Your task to perform on an android device: Go to ESPN.com Image 0: 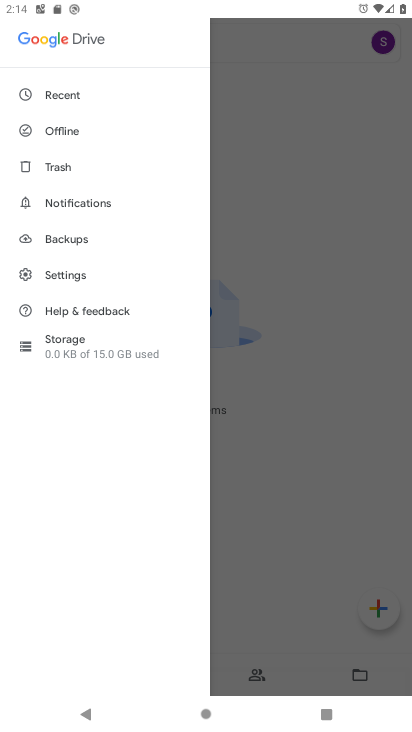
Step 0: click (328, 434)
Your task to perform on an android device: Go to ESPN.com Image 1: 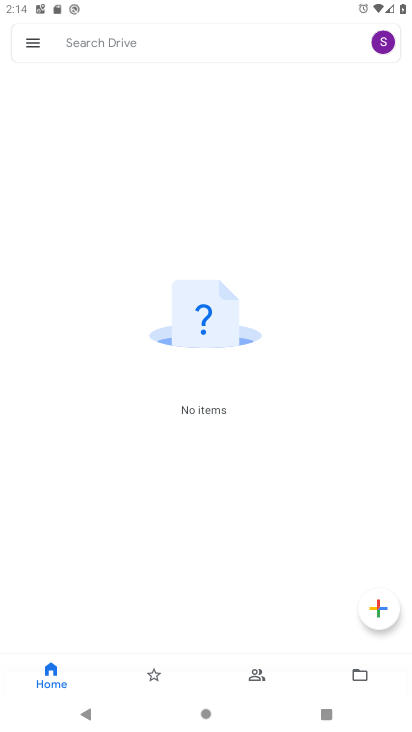
Step 1: press home button
Your task to perform on an android device: Go to ESPN.com Image 2: 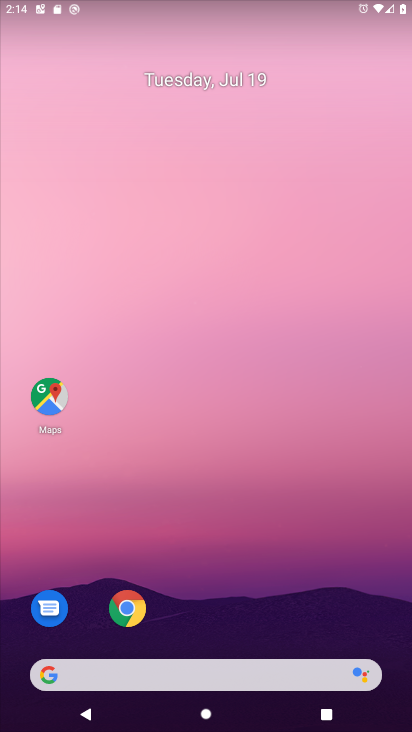
Step 2: drag from (236, 544) to (286, 122)
Your task to perform on an android device: Go to ESPN.com Image 3: 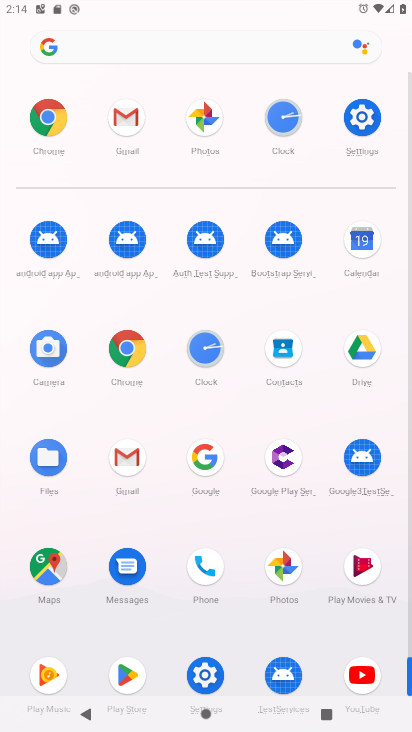
Step 3: click (133, 359)
Your task to perform on an android device: Go to ESPN.com Image 4: 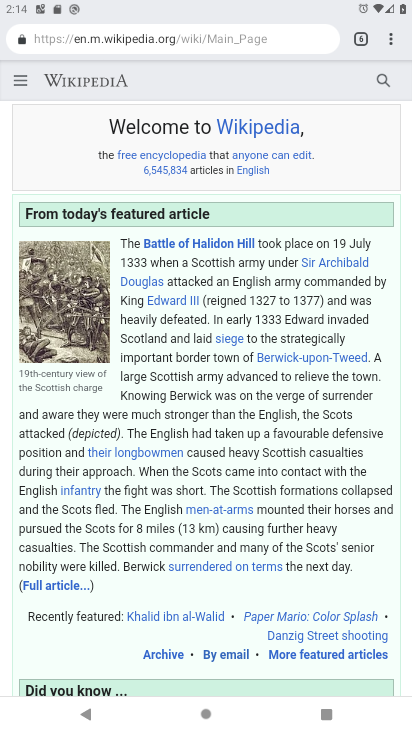
Step 4: click (366, 35)
Your task to perform on an android device: Go to ESPN.com Image 5: 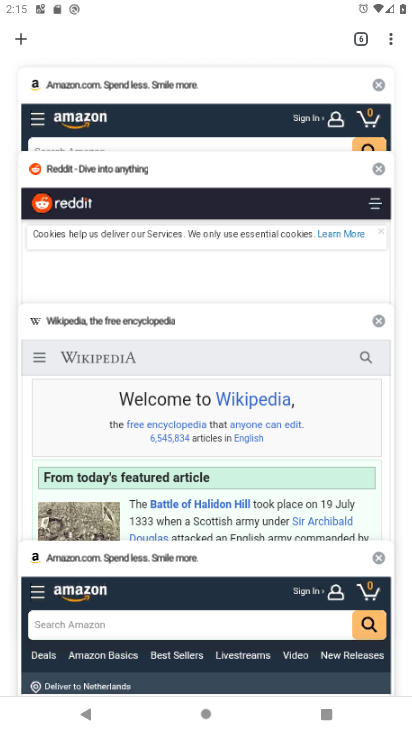
Step 5: click (27, 46)
Your task to perform on an android device: Go to ESPN.com Image 6: 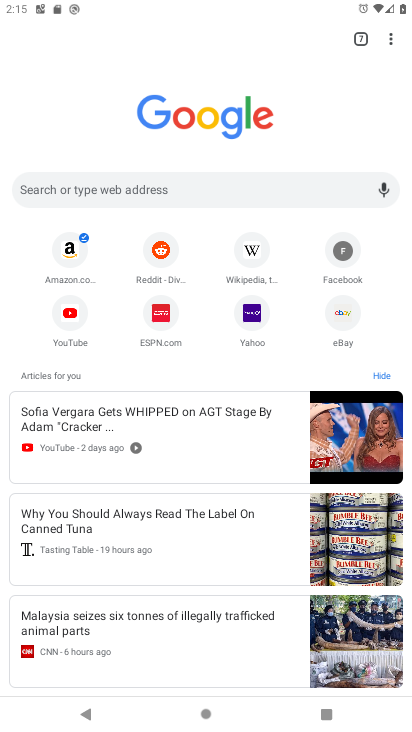
Step 6: click (237, 193)
Your task to perform on an android device: Go to ESPN.com Image 7: 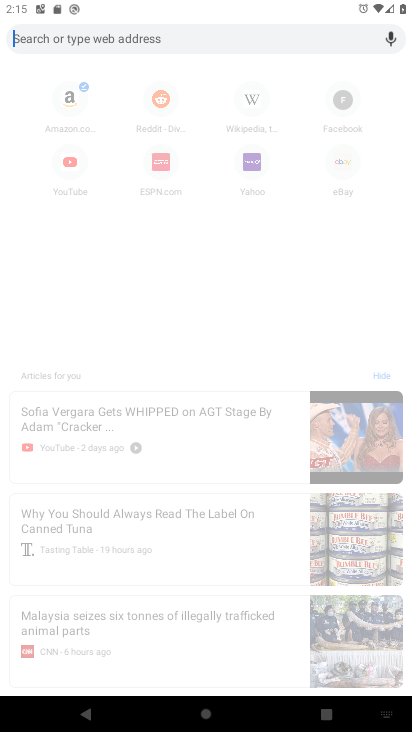
Step 7: type " ESPN.com"
Your task to perform on an android device: Go to ESPN.com Image 8: 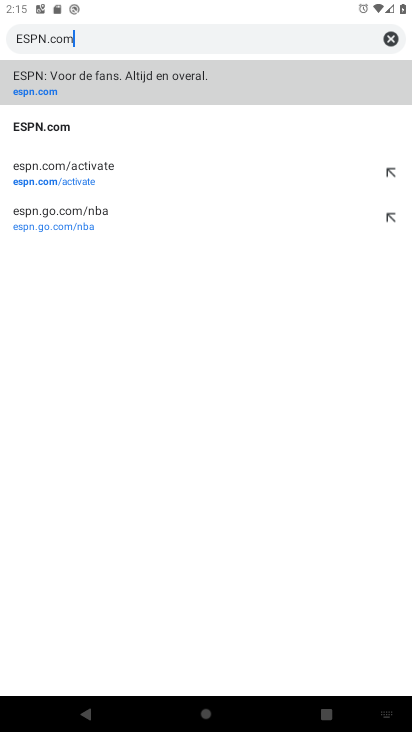
Step 8: type ""
Your task to perform on an android device: Go to ESPN.com Image 9: 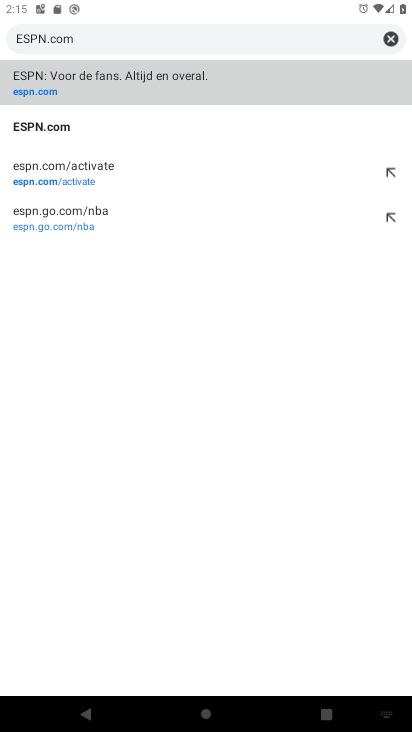
Step 9: click (93, 132)
Your task to perform on an android device: Go to ESPN.com Image 10: 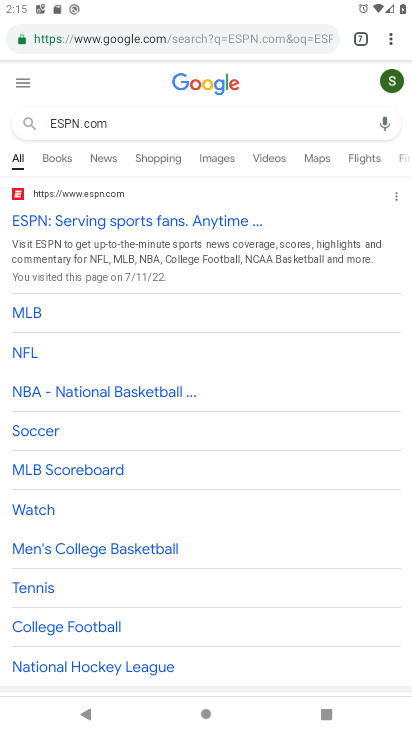
Step 10: click (86, 226)
Your task to perform on an android device: Go to ESPN.com Image 11: 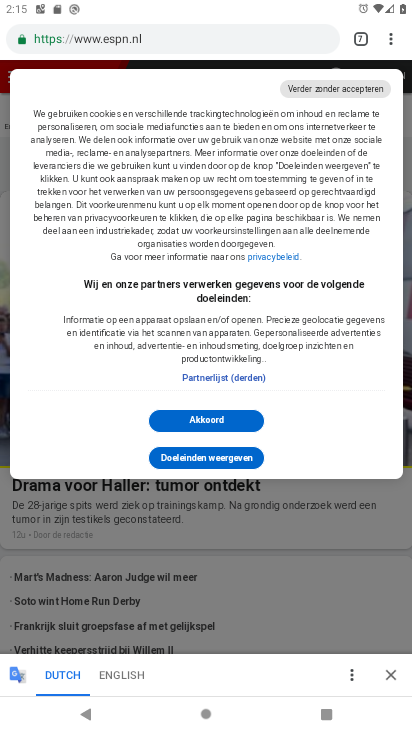
Step 11: task complete